Your task to perform on an android device: turn pop-ups off in chrome Image 0: 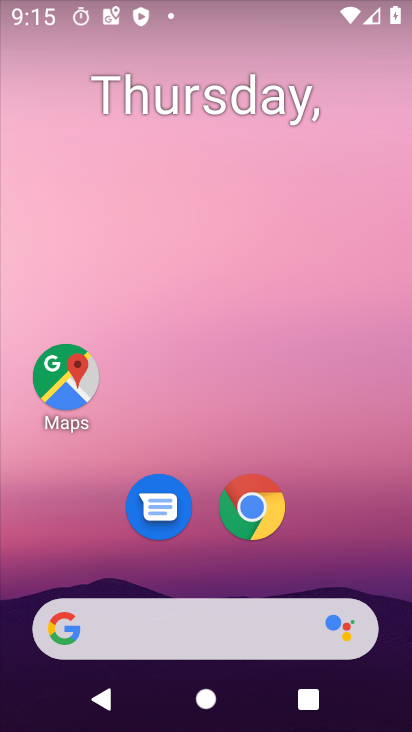
Step 0: click (271, 504)
Your task to perform on an android device: turn pop-ups off in chrome Image 1: 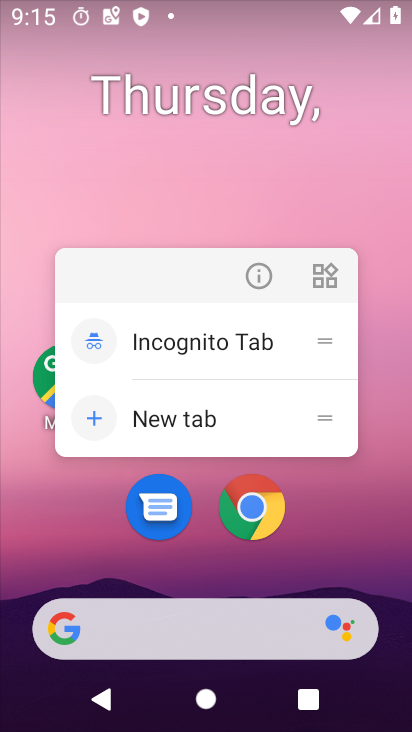
Step 1: click (231, 519)
Your task to perform on an android device: turn pop-ups off in chrome Image 2: 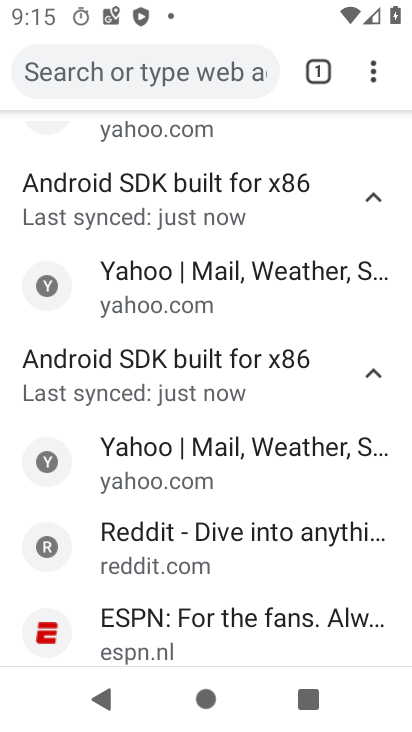
Step 2: click (376, 75)
Your task to perform on an android device: turn pop-ups off in chrome Image 3: 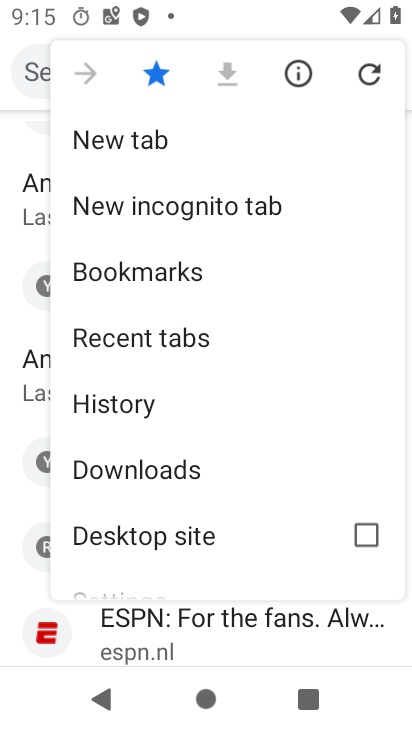
Step 3: drag from (156, 504) to (202, 134)
Your task to perform on an android device: turn pop-ups off in chrome Image 4: 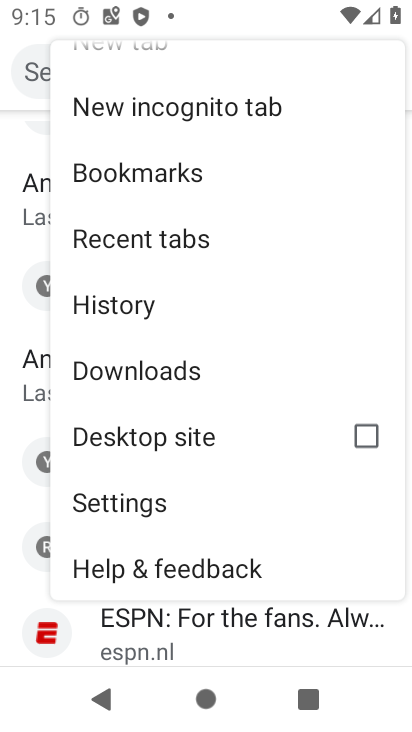
Step 4: click (128, 495)
Your task to perform on an android device: turn pop-ups off in chrome Image 5: 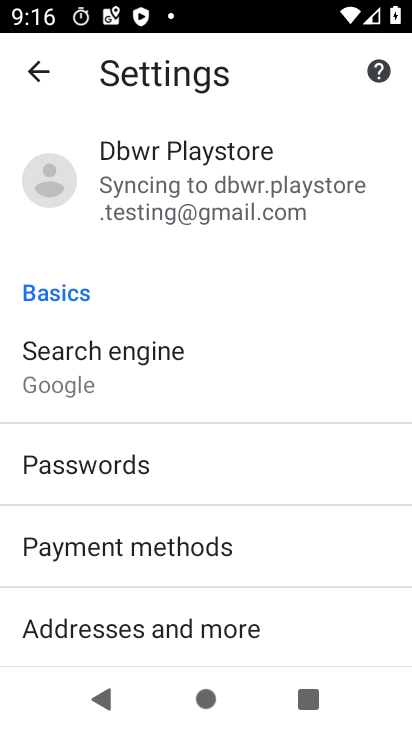
Step 5: drag from (136, 557) to (181, 247)
Your task to perform on an android device: turn pop-ups off in chrome Image 6: 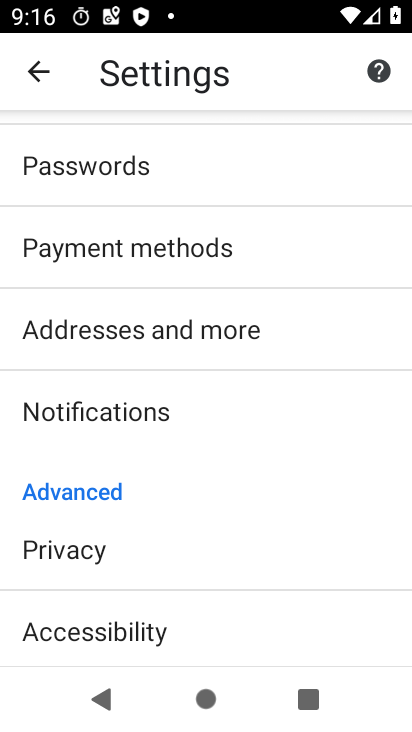
Step 6: drag from (129, 587) to (163, 231)
Your task to perform on an android device: turn pop-ups off in chrome Image 7: 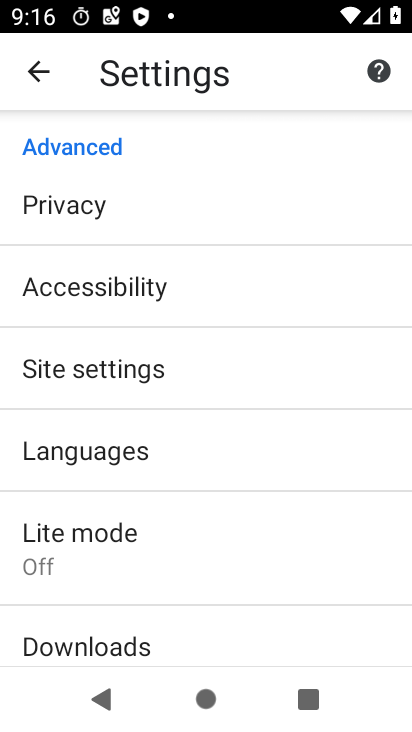
Step 7: click (96, 384)
Your task to perform on an android device: turn pop-ups off in chrome Image 8: 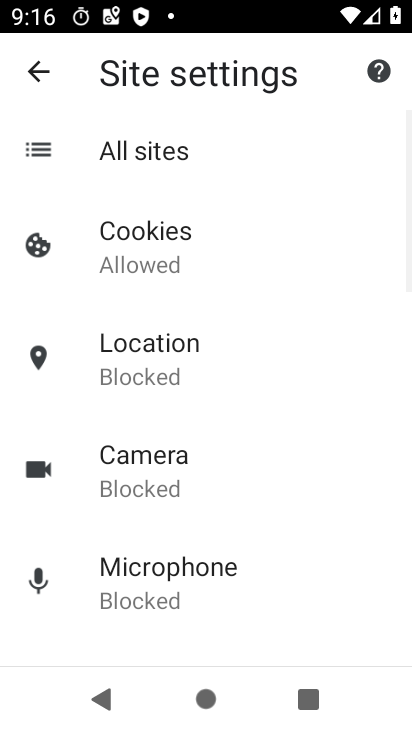
Step 8: drag from (142, 537) to (141, 347)
Your task to perform on an android device: turn pop-ups off in chrome Image 9: 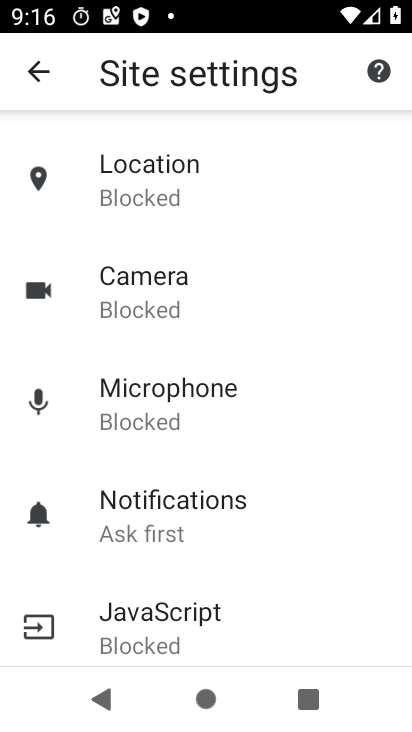
Step 9: drag from (131, 581) to (181, 275)
Your task to perform on an android device: turn pop-ups off in chrome Image 10: 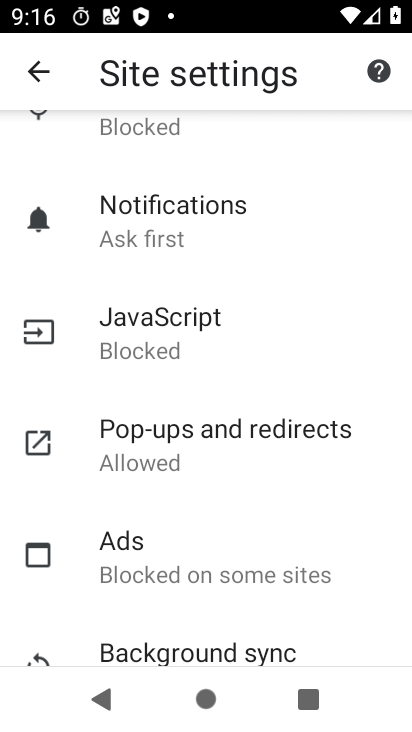
Step 10: click (185, 456)
Your task to perform on an android device: turn pop-ups off in chrome Image 11: 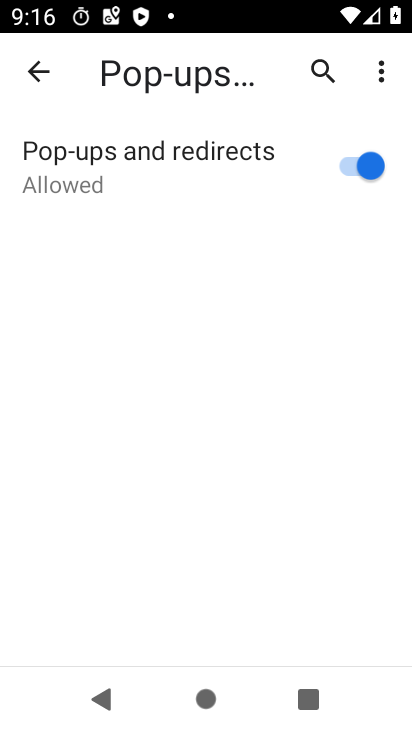
Step 11: click (334, 160)
Your task to perform on an android device: turn pop-ups off in chrome Image 12: 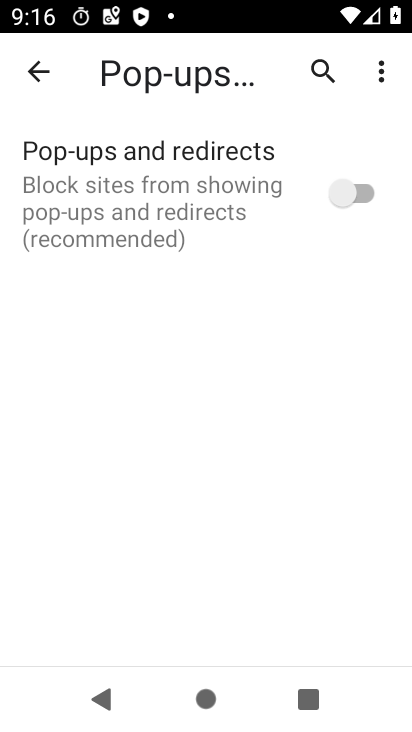
Step 12: task complete